Your task to perform on an android device: Go to ESPN.com Image 0: 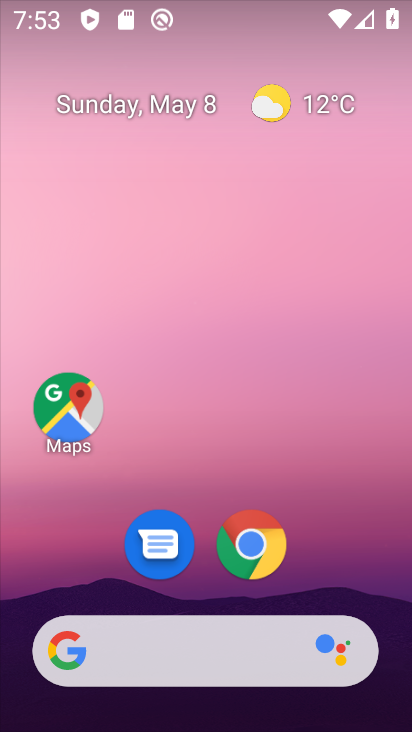
Step 0: click (255, 543)
Your task to perform on an android device: Go to ESPN.com Image 1: 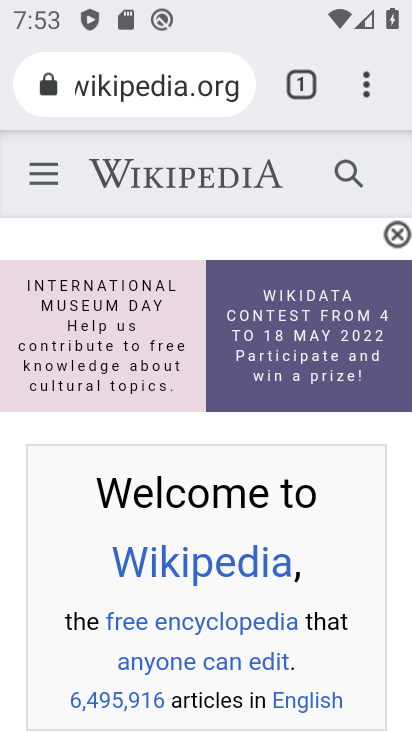
Step 1: click (366, 84)
Your task to perform on an android device: Go to ESPN.com Image 2: 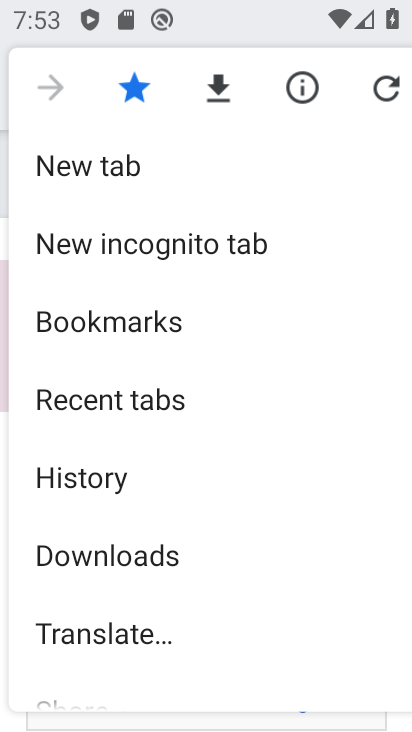
Step 2: click (126, 166)
Your task to perform on an android device: Go to ESPN.com Image 3: 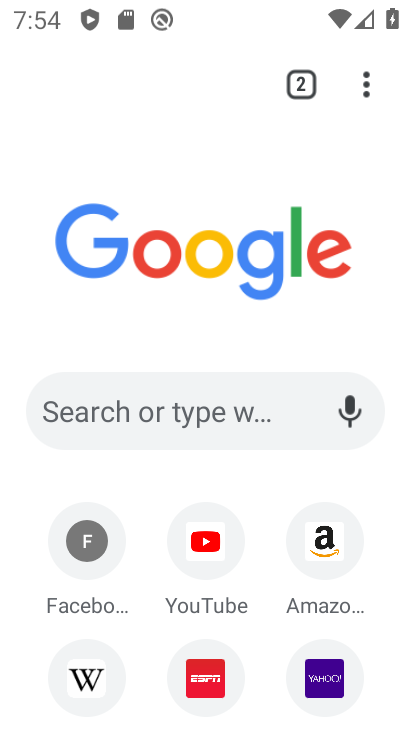
Step 3: click (204, 684)
Your task to perform on an android device: Go to ESPN.com Image 4: 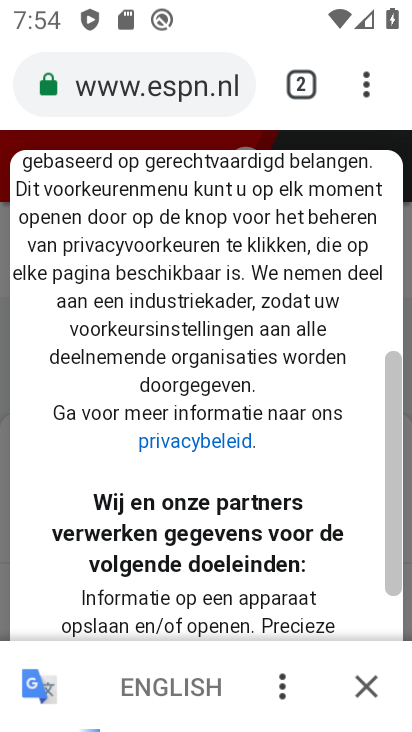
Step 4: task complete